Your task to perform on an android device: move a message to another label in the gmail app Image 0: 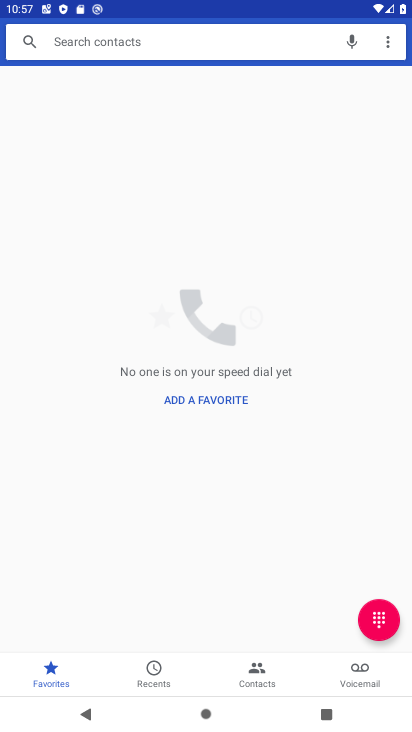
Step 0: press home button
Your task to perform on an android device: move a message to another label in the gmail app Image 1: 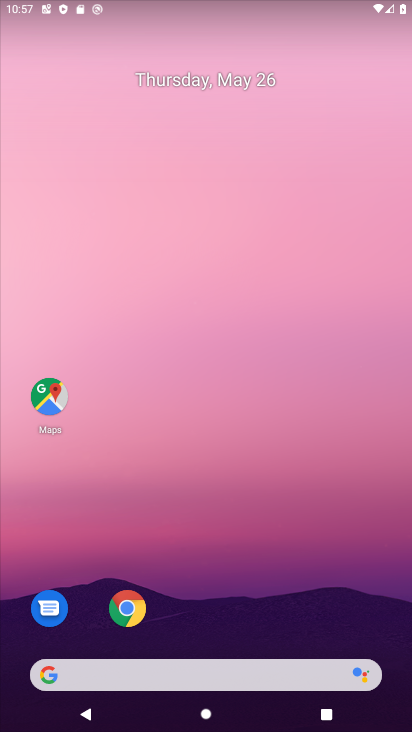
Step 1: drag from (222, 611) to (159, 11)
Your task to perform on an android device: move a message to another label in the gmail app Image 2: 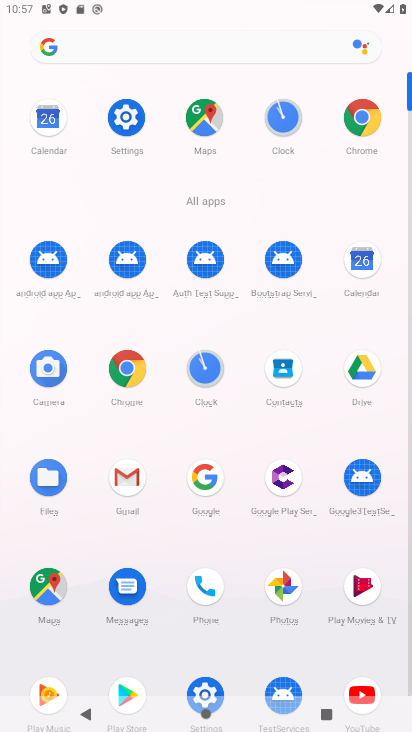
Step 2: click (137, 477)
Your task to perform on an android device: move a message to another label in the gmail app Image 3: 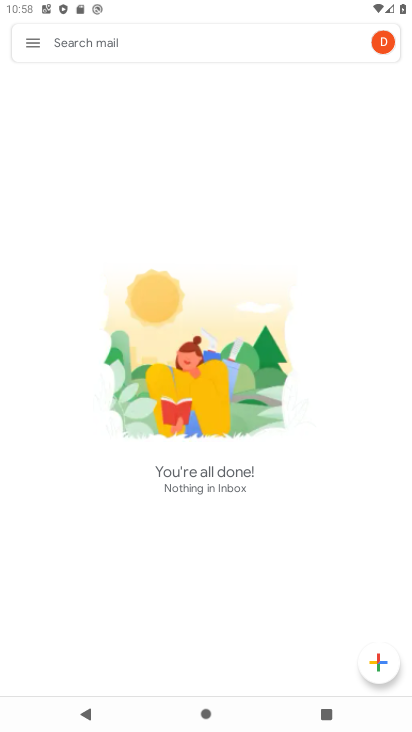
Step 3: click (38, 43)
Your task to perform on an android device: move a message to another label in the gmail app Image 4: 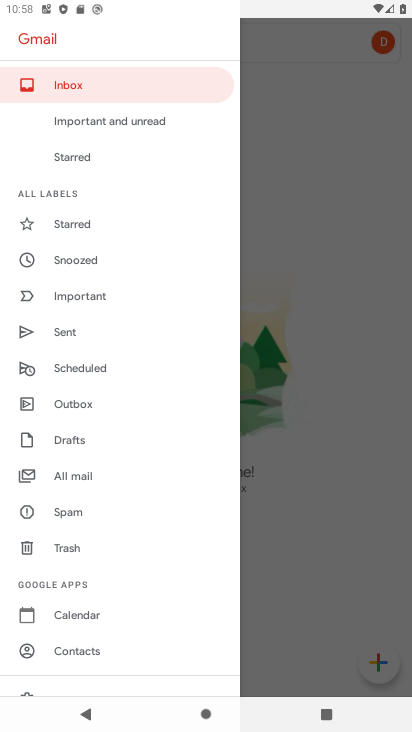
Step 4: click (104, 477)
Your task to perform on an android device: move a message to another label in the gmail app Image 5: 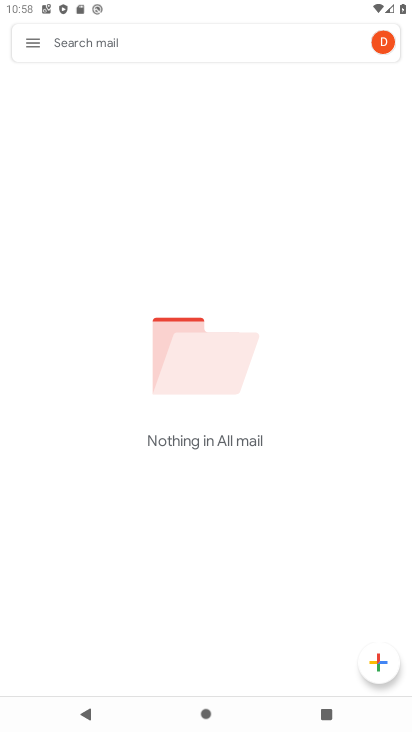
Step 5: task complete